Your task to perform on an android device: What's the top post on reddit today? Image 0: 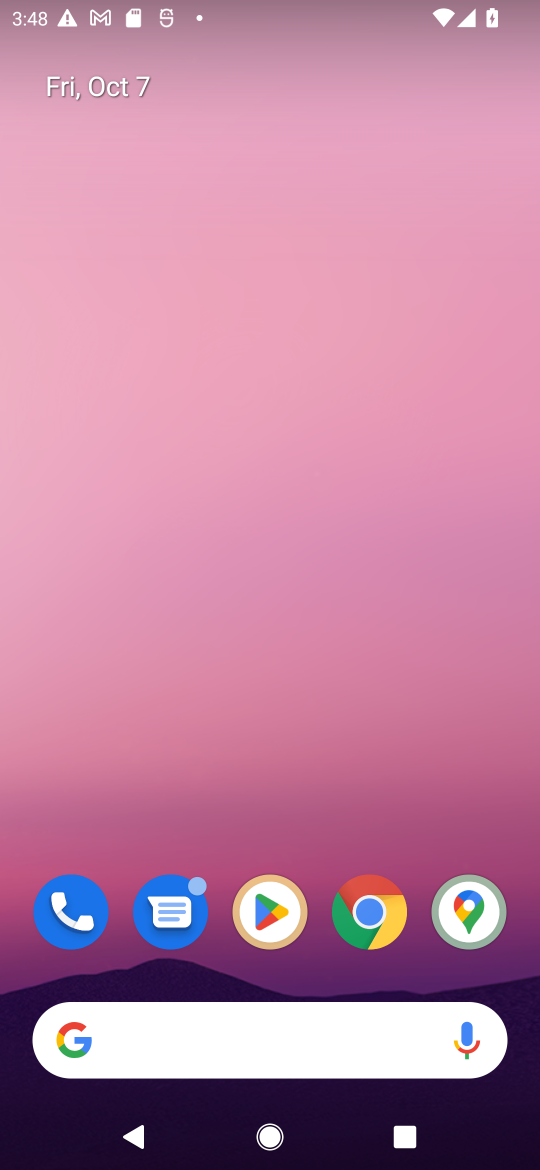
Step 0: drag from (275, 958) to (257, 378)
Your task to perform on an android device: What's the top post on reddit today? Image 1: 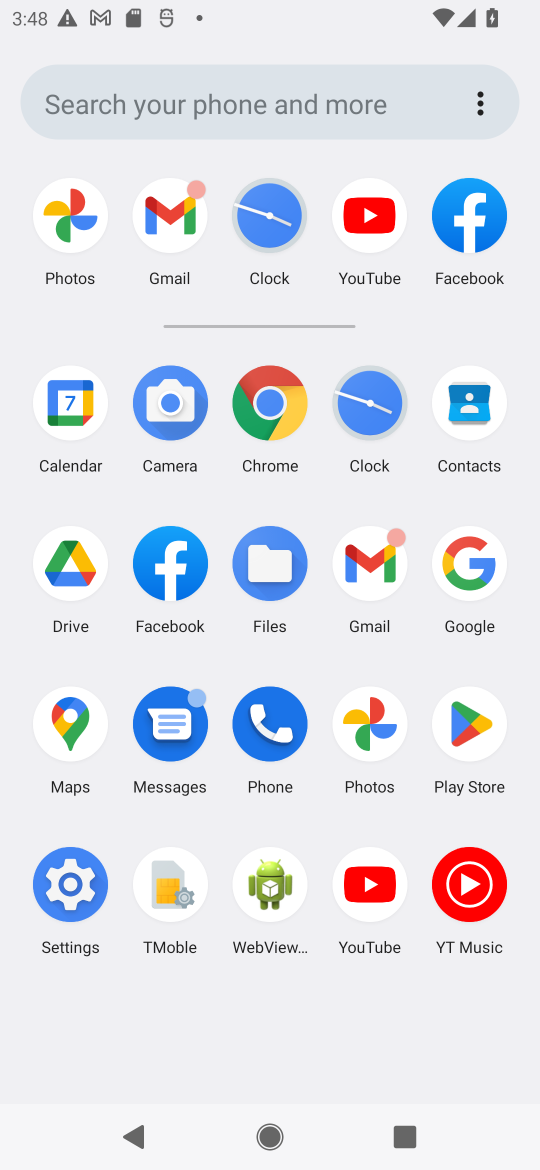
Step 1: click (462, 545)
Your task to perform on an android device: What's the top post on reddit today? Image 2: 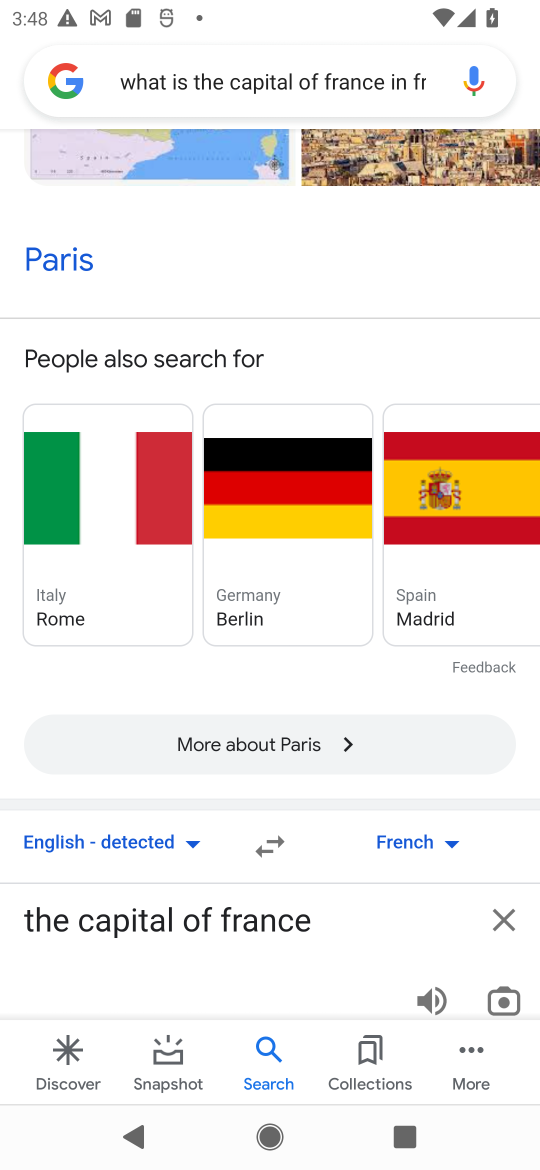
Step 2: click (388, 67)
Your task to perform on an android device: What's the top post on reddit today? Image 3: 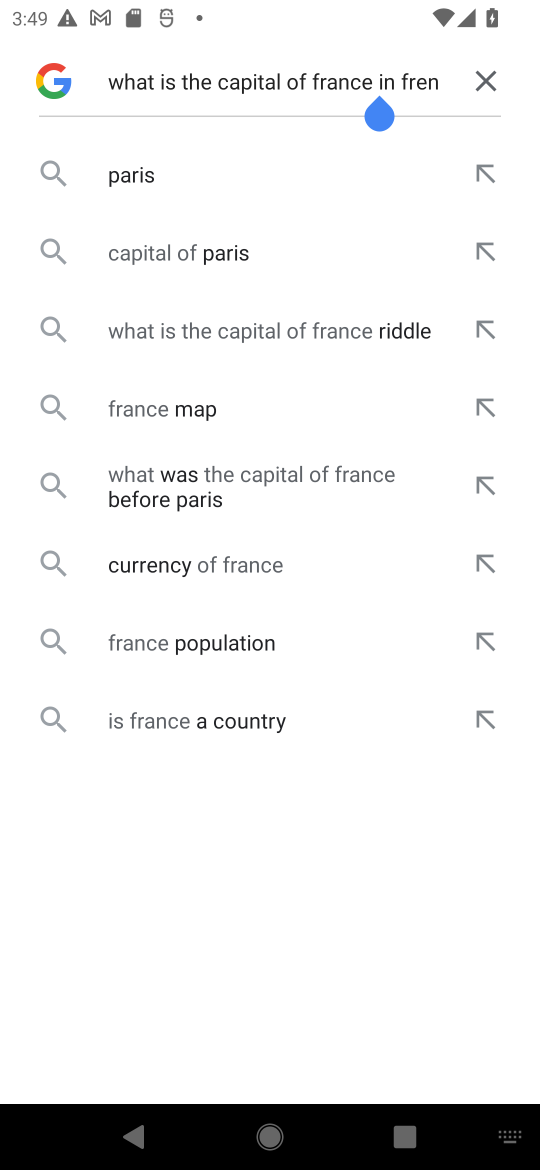
Step 3: click (477, 76)
Your task to perform on an android device: What's the top post on reddit today? Image 4: 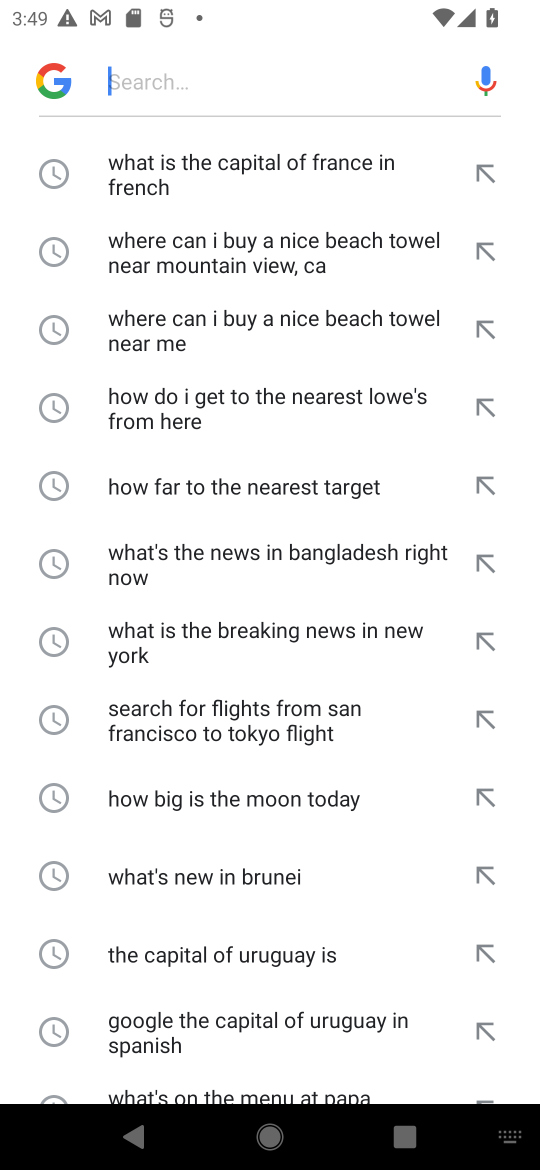
Step 4: click (245, 63)
Your task to perform on an android device: What's the top post on reddit today? Image 5: 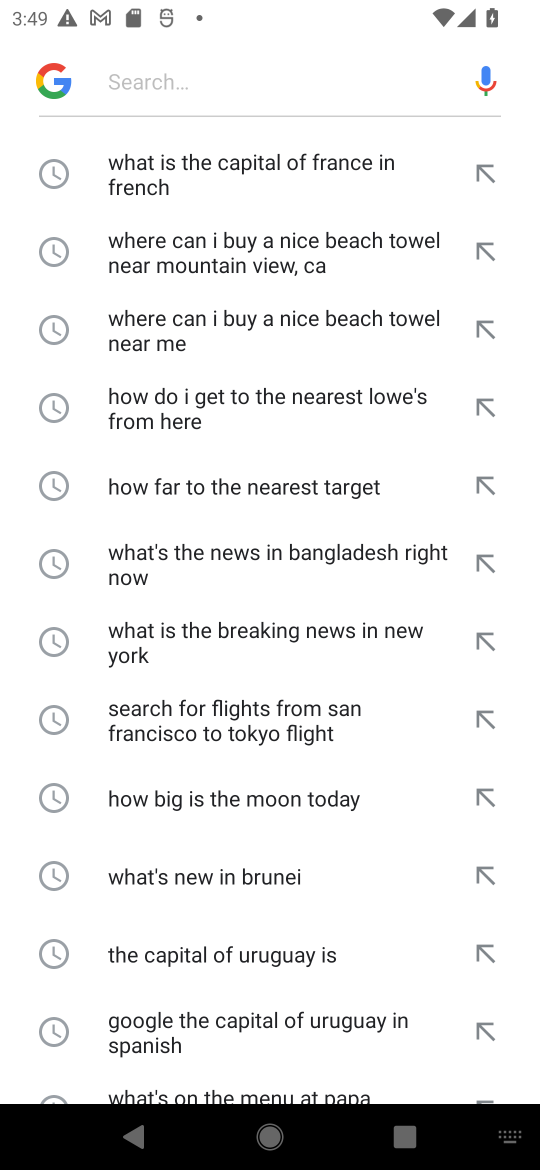
Step 5: type "What's the top post on reddit today? "
Your task to perform on an android device: What's the top post on reddit today? Image 6: 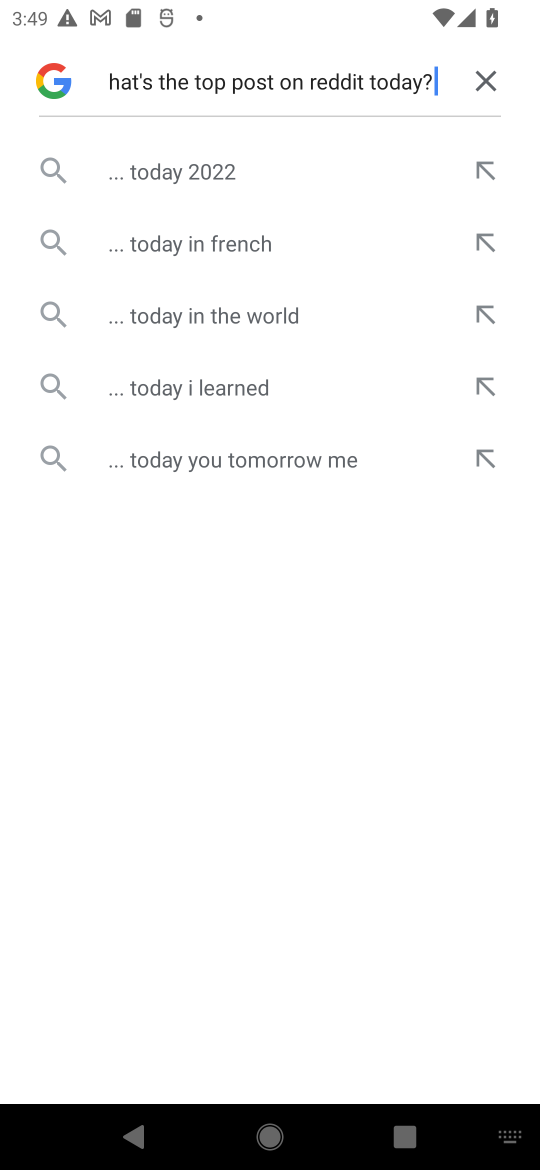
Step 6: click (220, 169)
Your task to perform on an android device: What's the top post on reddit today? Image 7: 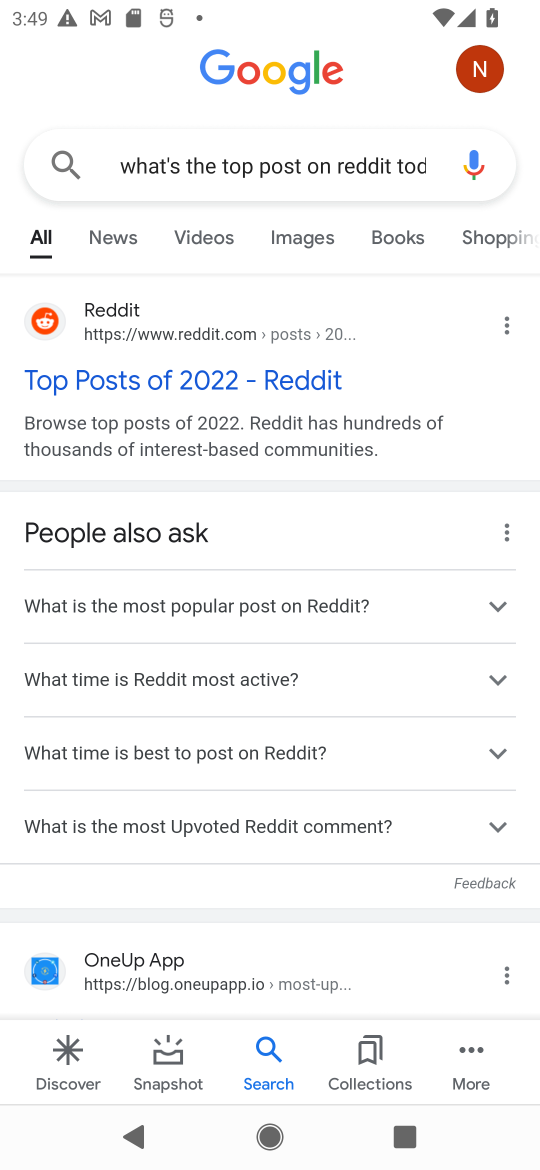
Step 7: click (157, 385)
Your task to perform on an android device: What's the top post on reddit today? Image 8: 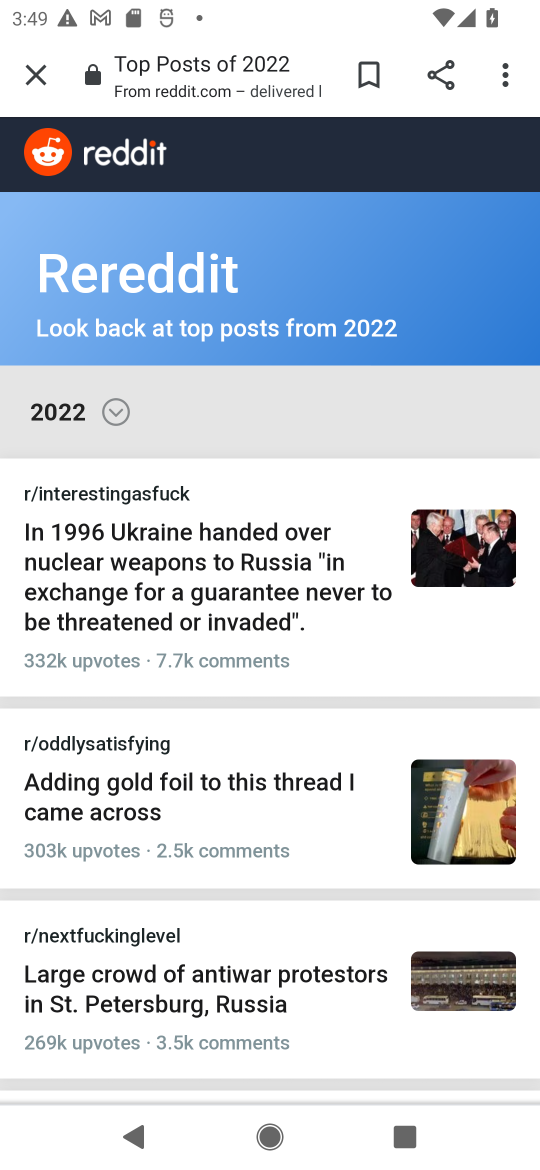
Step 8: task complete